Your task to perform on an android device: Open accessibility settings Image 0: 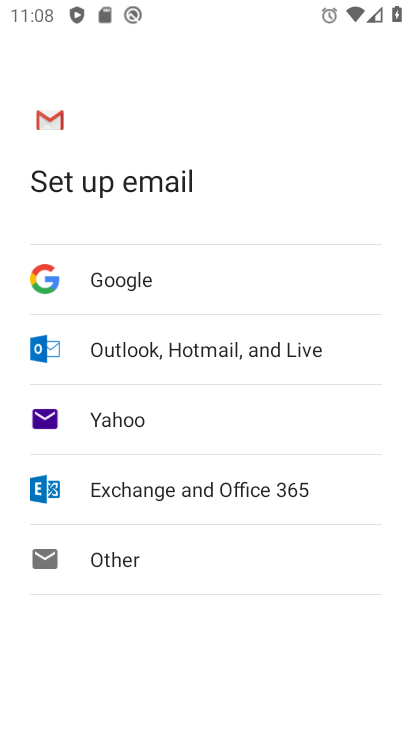
Step 0: press home button
Your task to perform on an android device: Open accessibility settings Image 1: 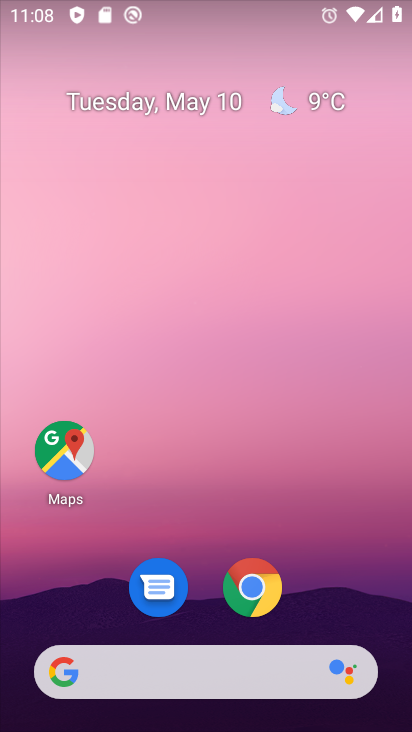
Step 1: drag from (362, 629) to (377, 5)
Your task to perform on an android device: Open accessibility settings Image 2: 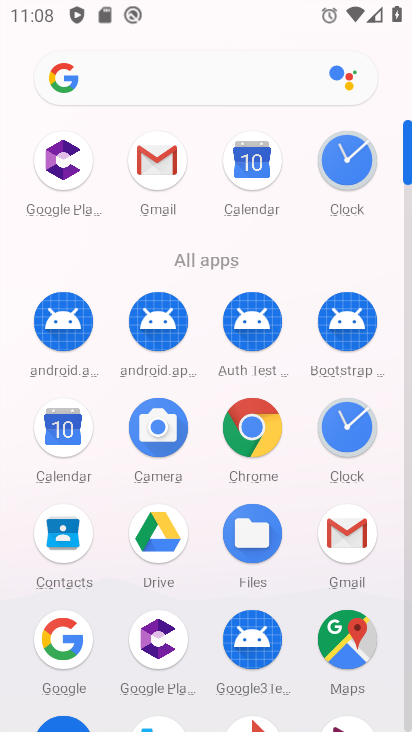
Step 2: click (410, 473)
Your task to perform on an android device: Open accessibility settings Image 3: 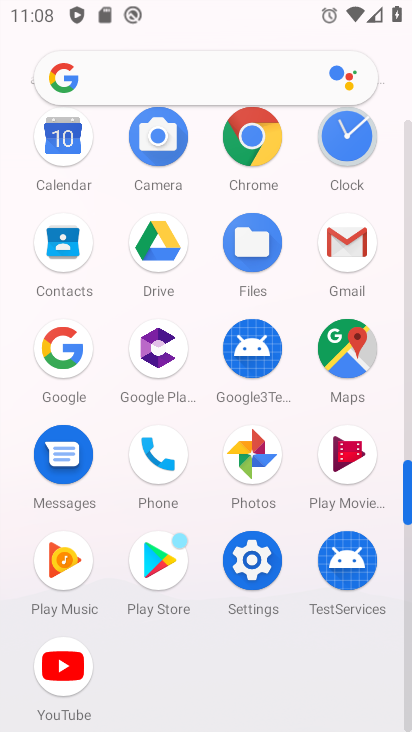
Step 3: click (253, 552)
Your task to perform on an android device: Open accessibility settings Image 4: 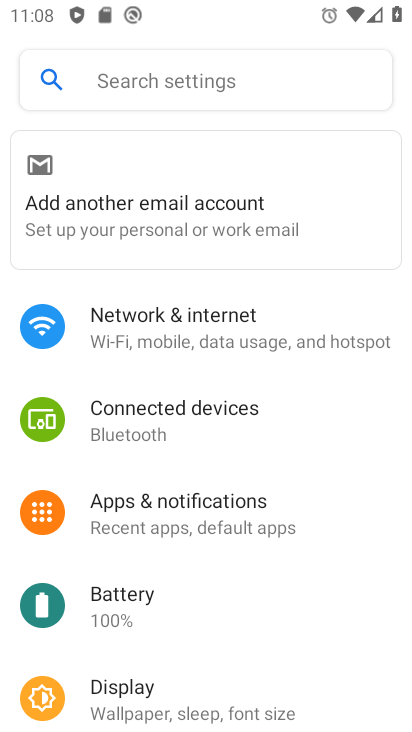
Step 4: drag from (186, 638) to (182, 159)
Your task to perform on an android device: Open accessibility settings Image 5: 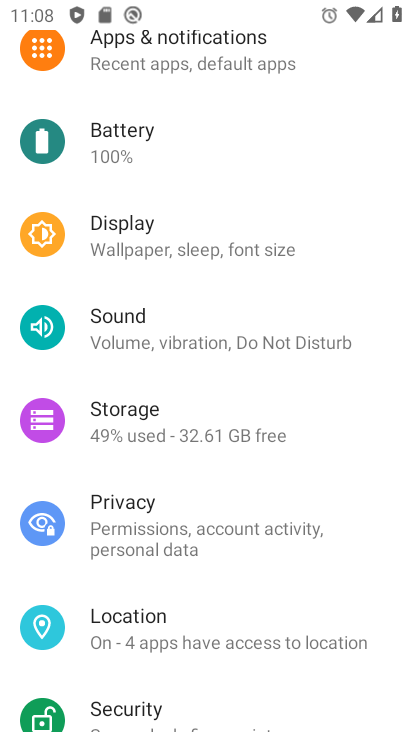
Step 5: drag from (172, 614) to (178, 211)
Your task to perform on an android device: Open accessibility settings Image 6: 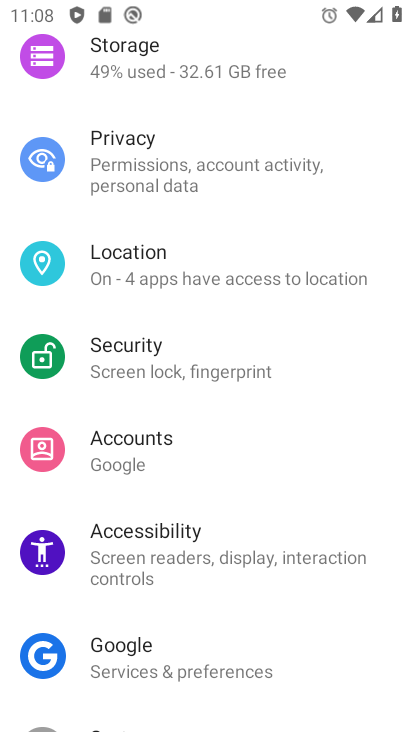
Step 6: click (169, 541)
Your task to perform on an android device: Open accessibility settings Image 7: 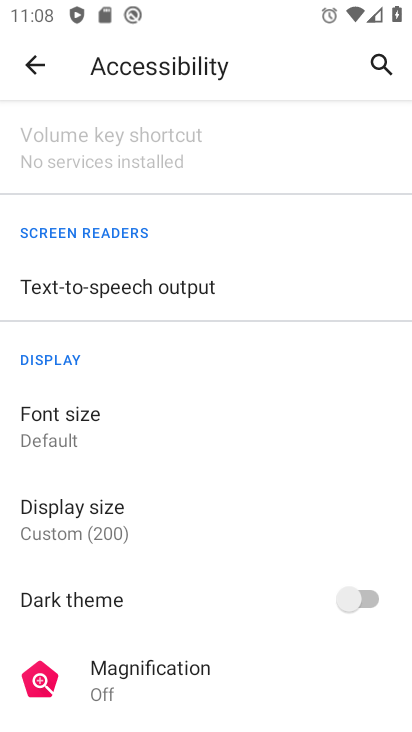
Step 7: task complete